Your task to perform on an android device: find which apps use the phone's location Image 0: 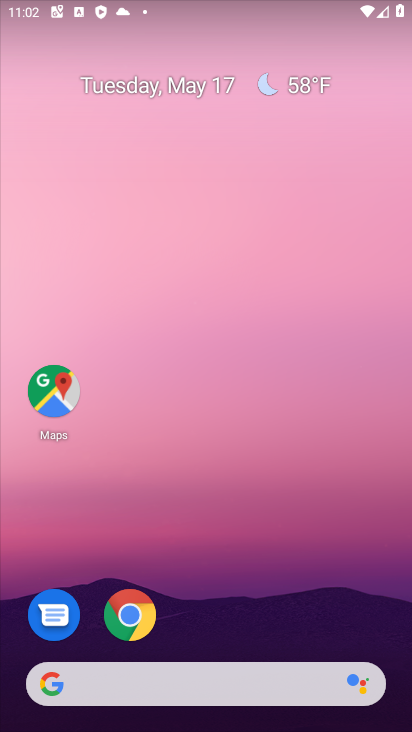
Step 0: drag from (371, 632) to (353, 98)
Your task to perform on an android device: find which apps use the phone's location Image 1: 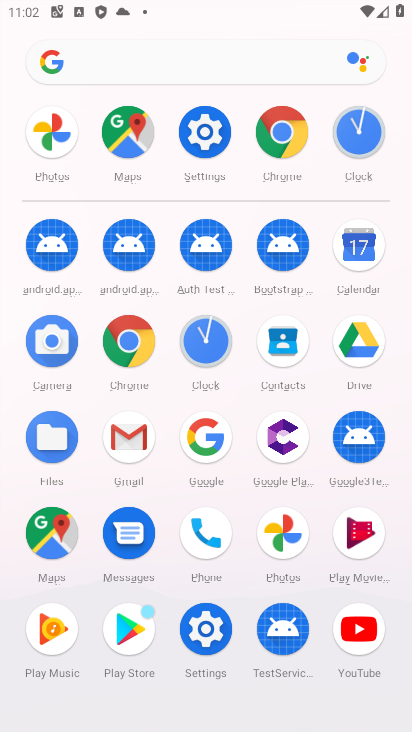
Step 1: click (206, 629)
Your task to perform on an android device: find which apps use the phone's location Image 2: 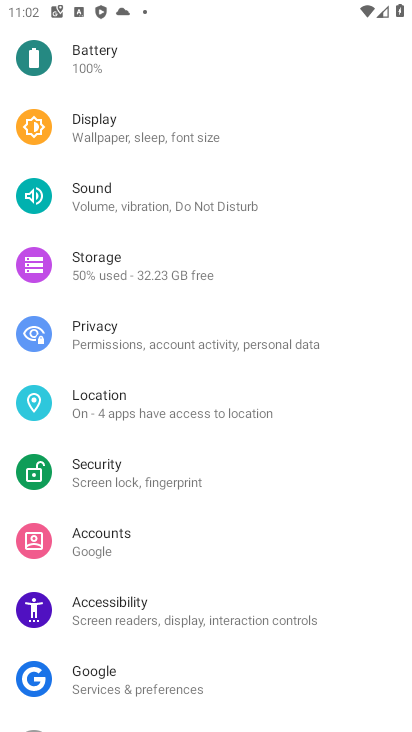
Step 2: click (128, 400)
Your task to perform on an android device: find which apps use the phone's location Image 3: 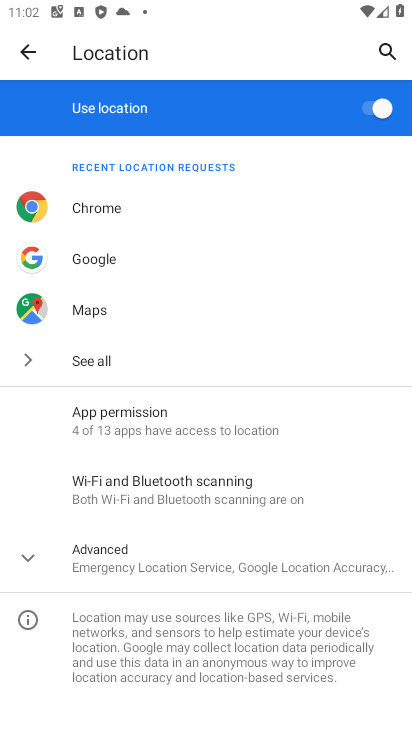
Step 3: click (113, 418)
Your task to perform on an android device: find which apps use the phone's location Image 4: 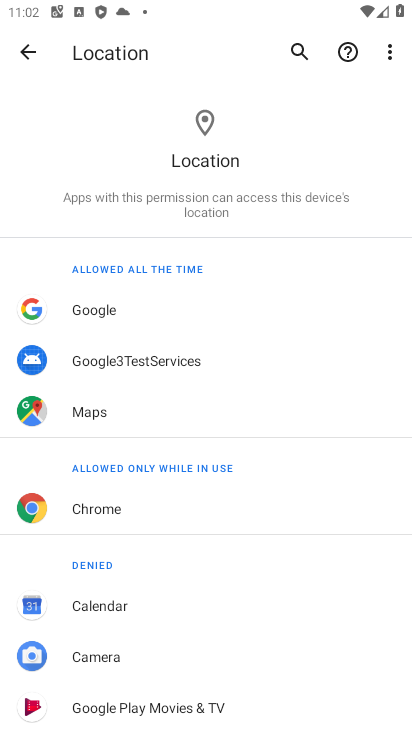
Step 4: drag from (166, 668) to (222, 209)
Your task to perform on an android device: find which apps use the phone's location Image 5: 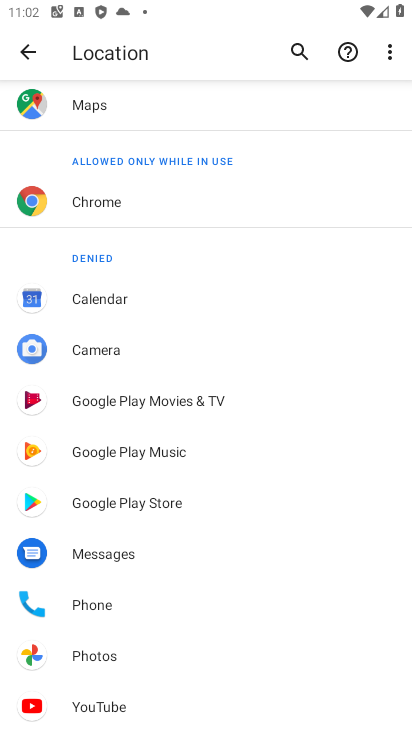
Step 5: click (85, 651)
Your task to perform on an android device: find which apps use the phone's location Image 6: 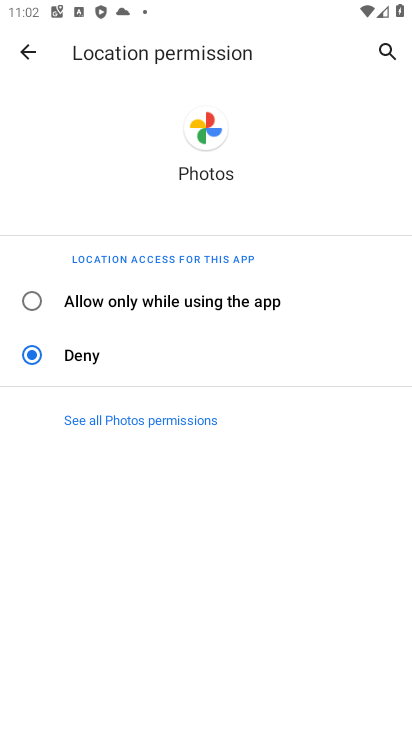
Step 6: task complete